Your task to perform on an android device: Open Google Image 0: 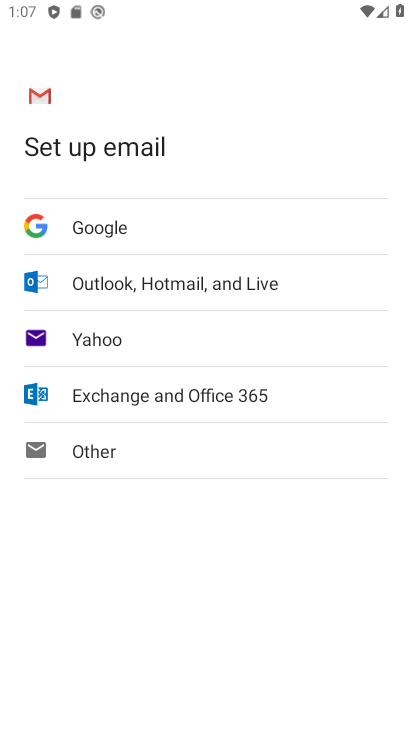
Step 0: press home button
Your task to perform on an android device: Open Google Image 1: 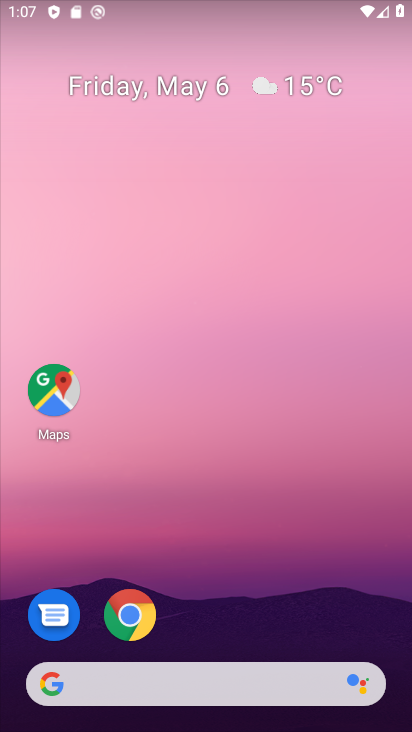
Step 1: drag from (291, 548) to (295, 32)
Your task to perform on an android device: Open Google Image 2: 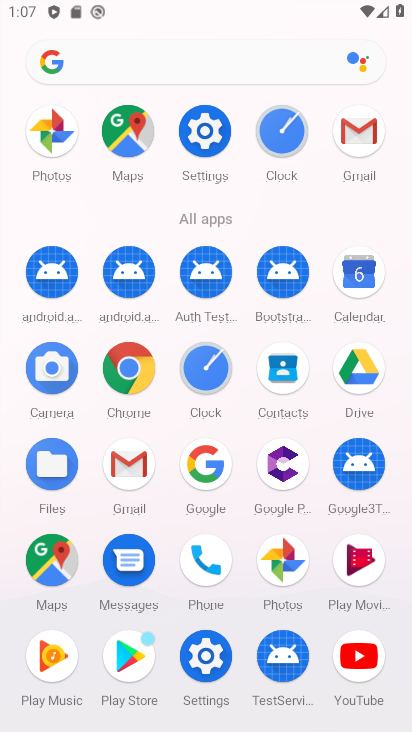
Step 2: click (196, 457)
Your task to perform on an android device: Open Google Image 3: 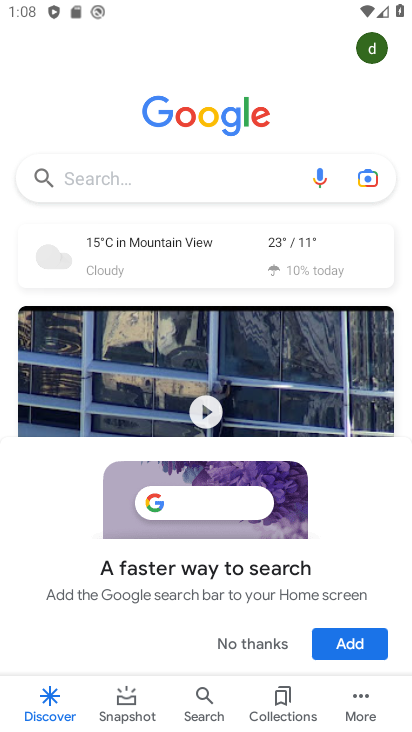
Step 3: task complete